Your task to perform on an android device: Go to Google Image 0: 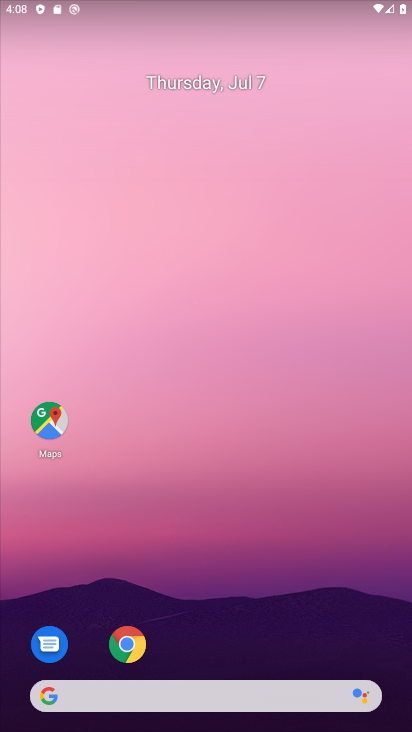
Step 0: click (133, 689)
Your task to perform on an android device: Go to Google Image 1: 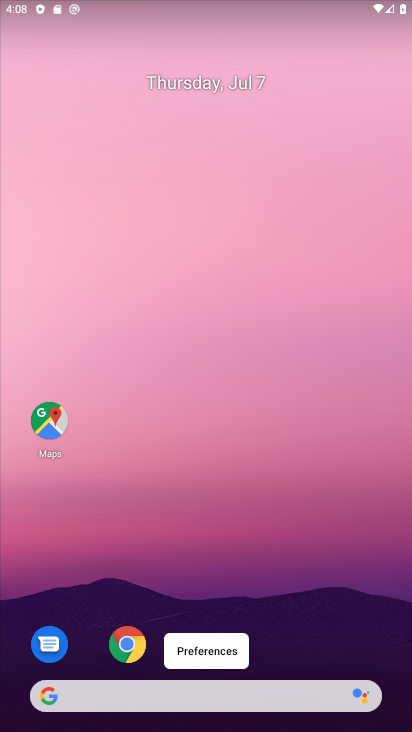
Step 1: click (45, 699)
Your task to perform on an android device: Go to Google Image 2: 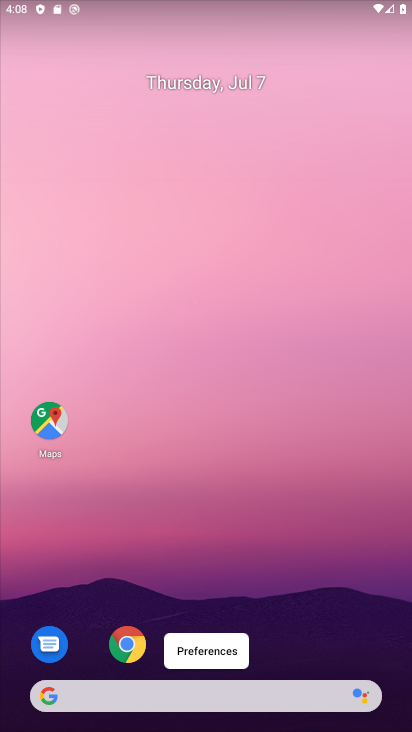
Step 2: click (46, 698)
Your task to perform on an android device: Go to Google Image 3: 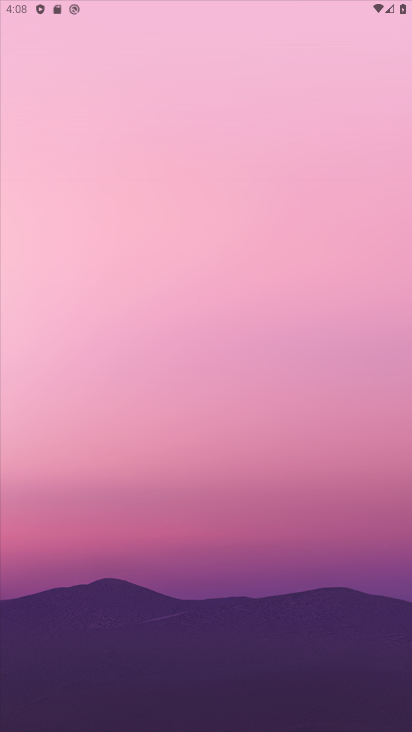
Step 3: click (53, 696)
Your task to perform on an android device: Go to Google Image 4: 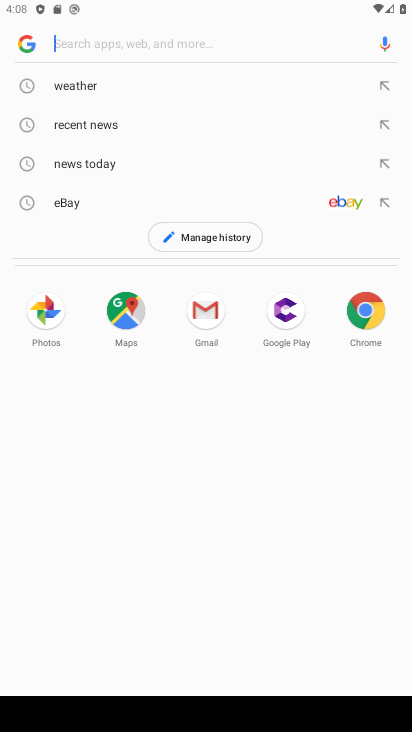
Step 4: click (28, 42)
Your task to perform on an android device: Go to Google Image 5: 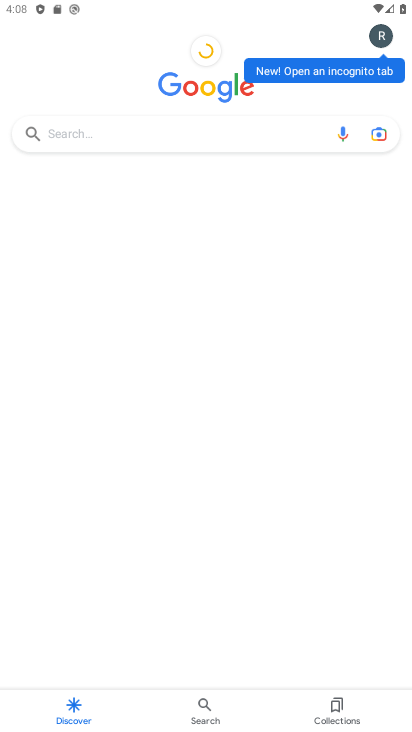
Step 5: task complete